Your task to perform on an android device: Go to Amazon Image 0: 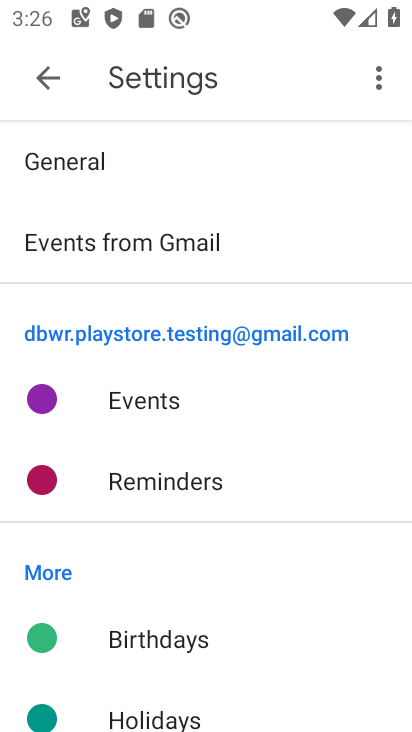
Step 0: press home button
Your task to perform on an android device: Go to Amazon Image 1: 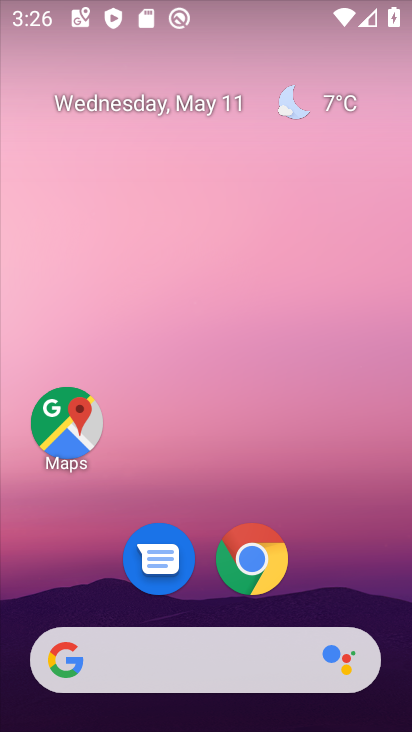
Step 1: click (234, 560)
Your task to perform on an android device: Go to Amazon Image 2: 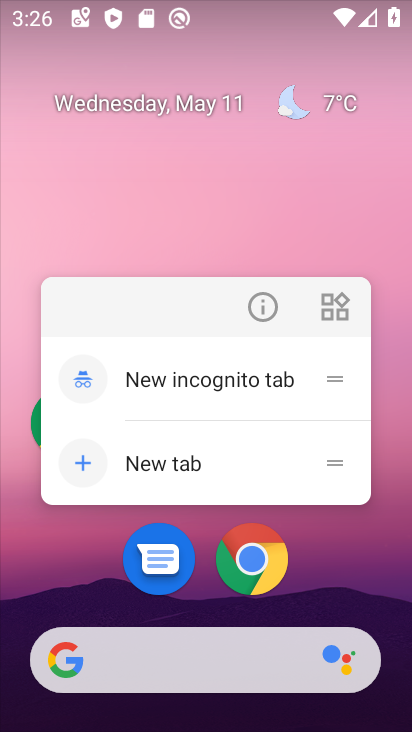
Step 2: click (246, 565)
Your task to perform on an android device: Go to Amazon Image 3: 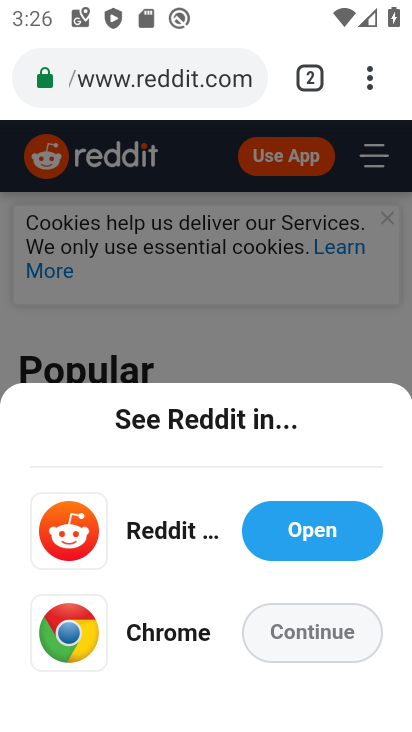
Step 3: click (314, 75)
Your task to perform on an android device: Go to Amazon Image 4: 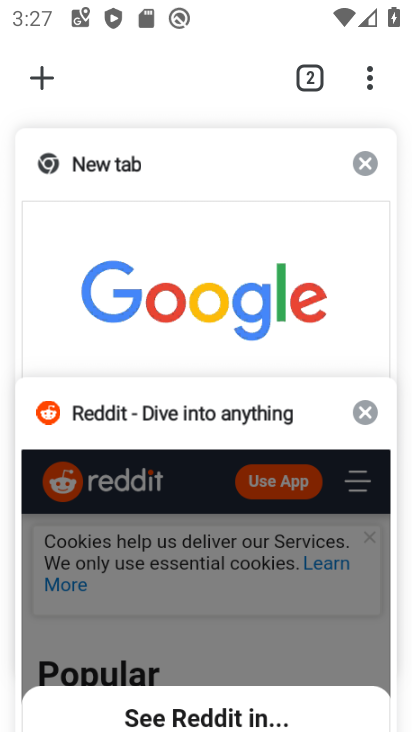
Step 4: click (364, 161)
Your task to perform on an android device: Go to Amazon Image 5: 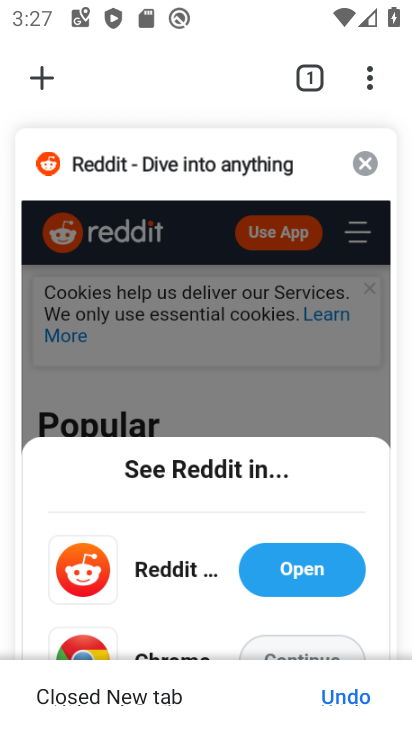
Step 5: click (364, 161)
Your task to perform on an android device: Go to Amazon Image 6: 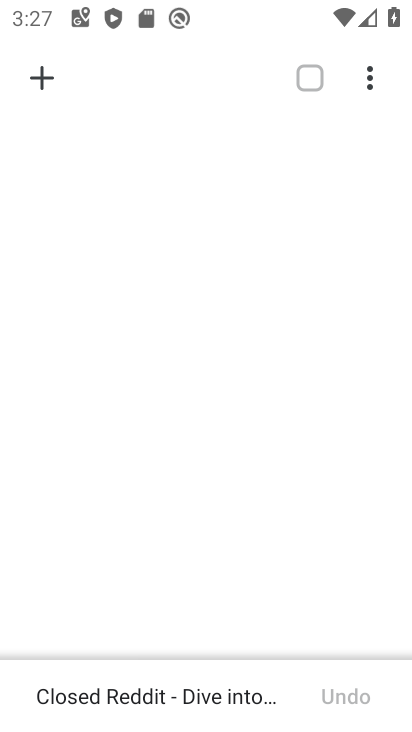
Step 6: click (38, 76)
Your task to perform on an android device: Go to Amazon Image 7: 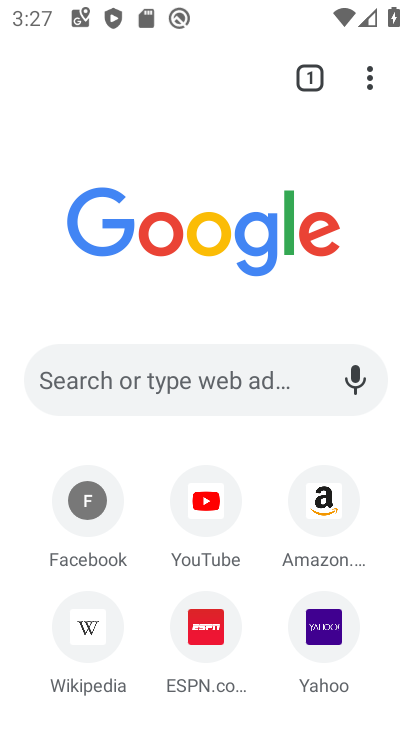
Step 7: click (133, 383)
Your task to perform on an android device: Go to Amazon Image 8: 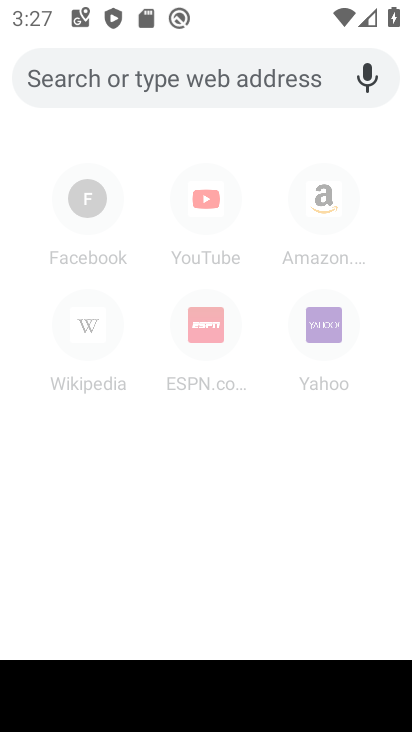
Step 8: click (328, 203)
Your task to perform on an android device: Go to Amazon Image 9: 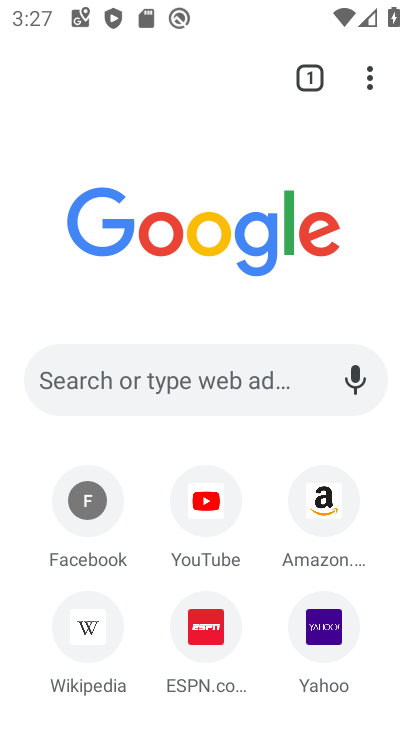
Step 9: click (327, 497)
Your task to perform on an android device: Go to Amazon Image 10: 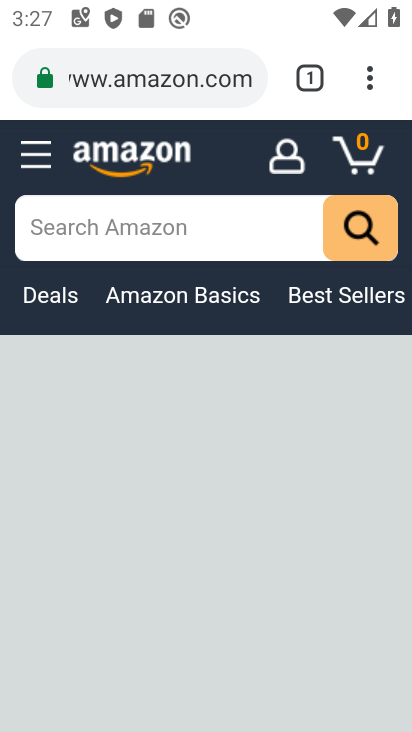
Step 10: task complete